Your task to perform on an android device: Open calendar and show me the fourth week of next month Image 0: 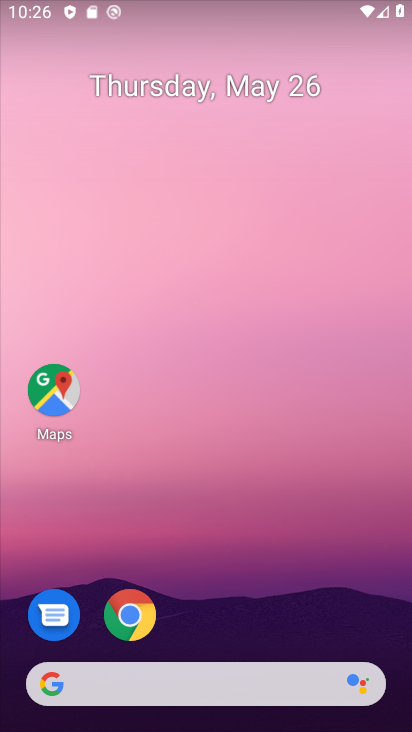
Step 0: drag from (283, 494) to (309, 201)
Your task to perform on an android device: Open calendar and show me the fourth week of next month Image 1: 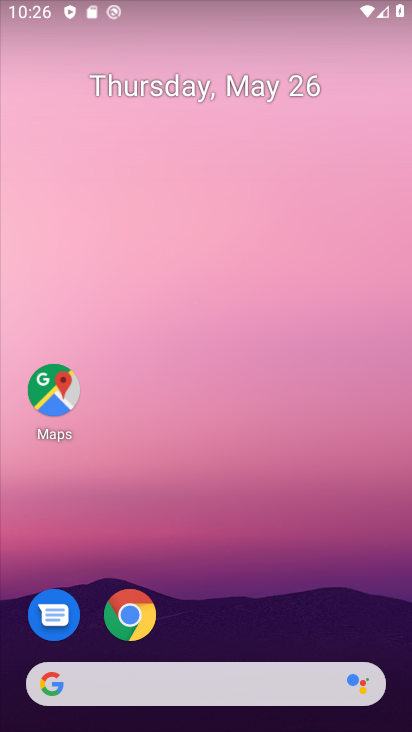
Step 1: drag from (301, 641) to (307, 225)
Your task to perform on an android device: Open calendar and show me the fourth week of next month Image 2: 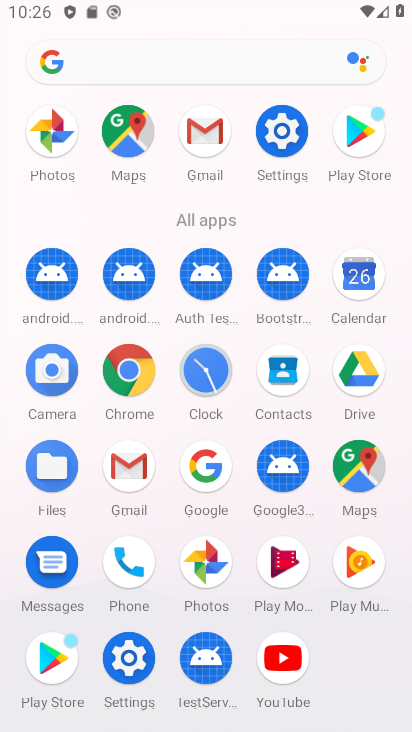
Step 2: click (357, 291)
Your task to perform on an android device: Open calendar and show me the fourth week of next month Image 3: 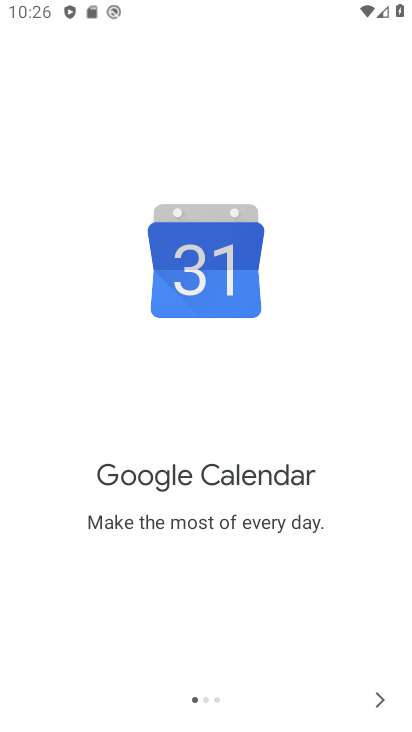
Step 3: click (380, 709)
Your task to perform on an android device: Open calendar and show me the fourth week of next month Image 4: 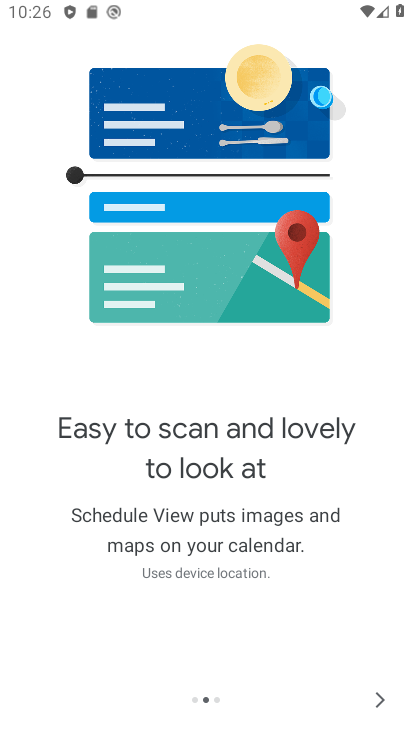
Step 4: click (380, 709)
Your task to perform on an android device: Open calendar and show me the fourth week of next month Image 5: 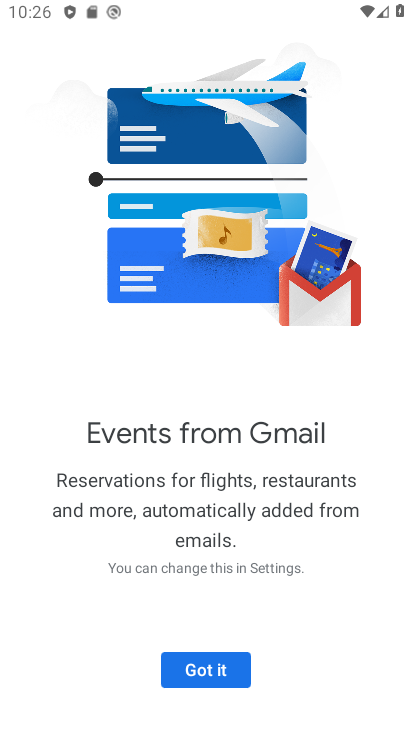
Step 5: click (211, 667)
Your task to perform on an android device: Open calendar and show me the fourth week of next month Image 6: 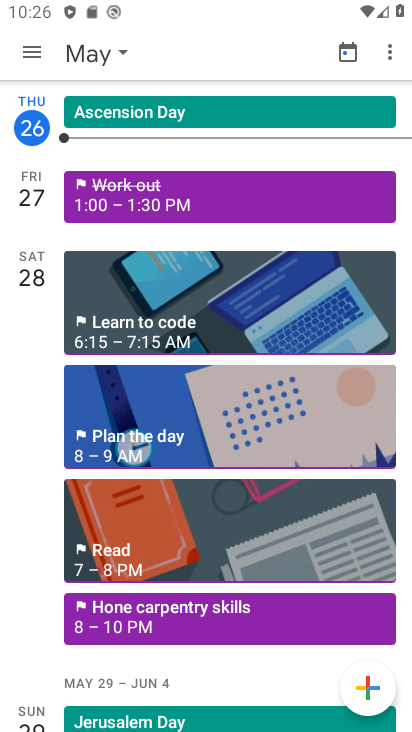
Step 6: click (48, 57)
Your task to perform on an android device: Open calendar and show me the fourth week of next month Image 7: 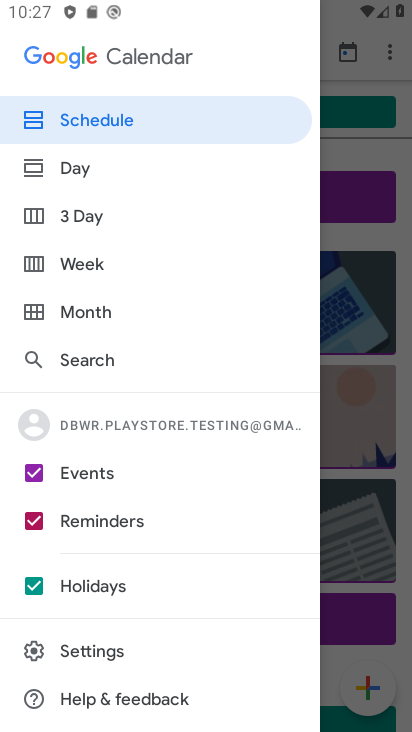
Step 7: click (122, 265)
Your task to perform on an android device: Open calendar and show me the fourth week of next month Image 8: 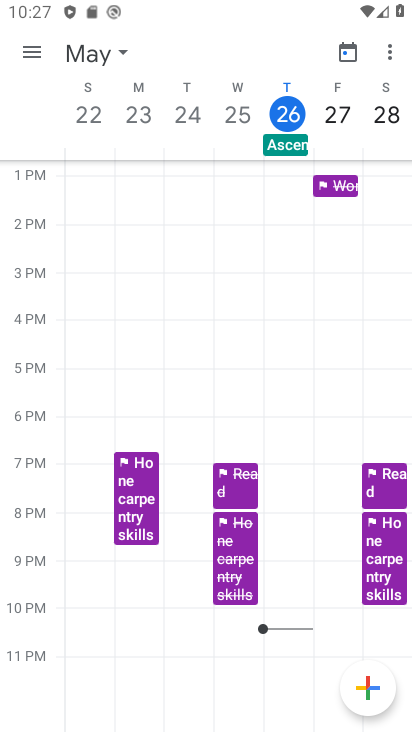
Step 8: click (107, 59)
Your task to perform on an android device: Open calendar and show me the fourth week of next month Image 9: 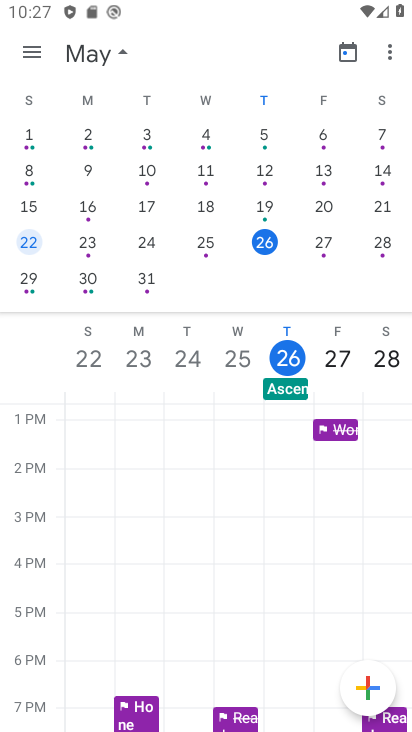
Step 9: drag from (362, 264) to (71, 183)
Your task to perform on an android device: Open calendar and show me the fourth week of next month Image 10: 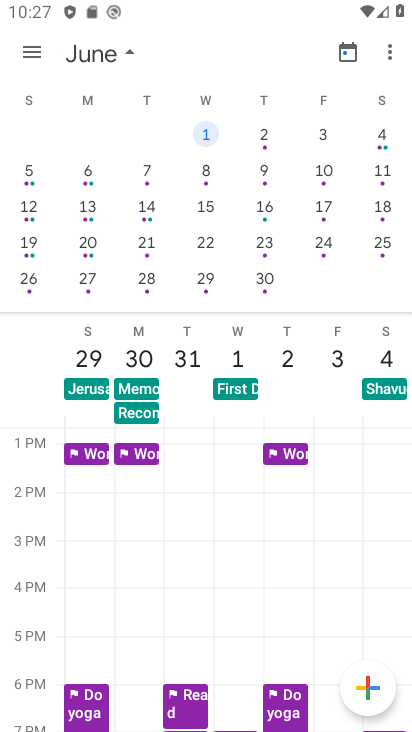
Step 10: click (97, 280)
Your task to perform on an android device: Open calendar and show me the fourth week of next month Image 11: 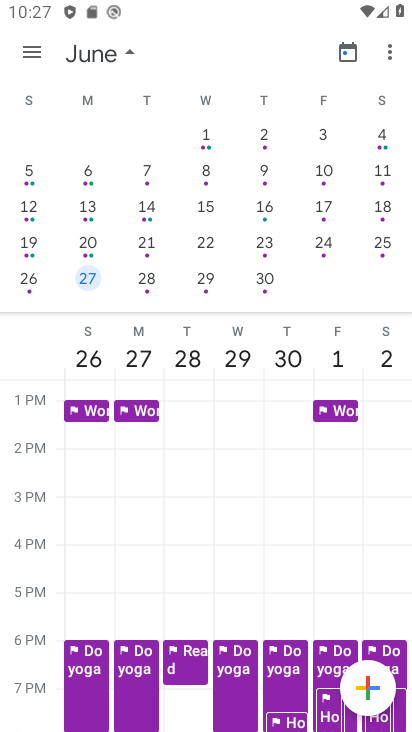
Step 11: task complete